Your task to perform on an android device: see tabs open on other devices in the chrome app Image 0: 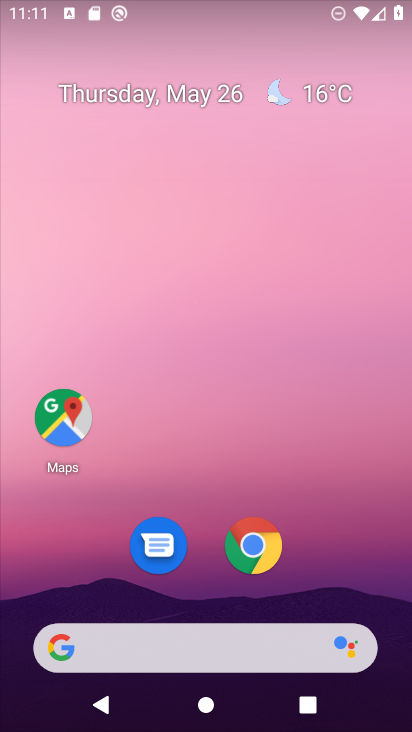
Step 0: press home button
Your task to perform on an android device: see tabs open on other devices in the chrome app Image 1: 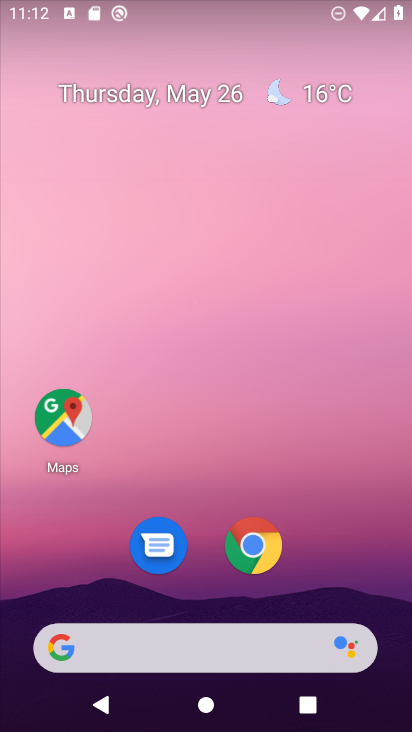
Step 1: click (254, 551)
Your task to perform on an android device: see tabs open on other devices in the chrome app Image 2: 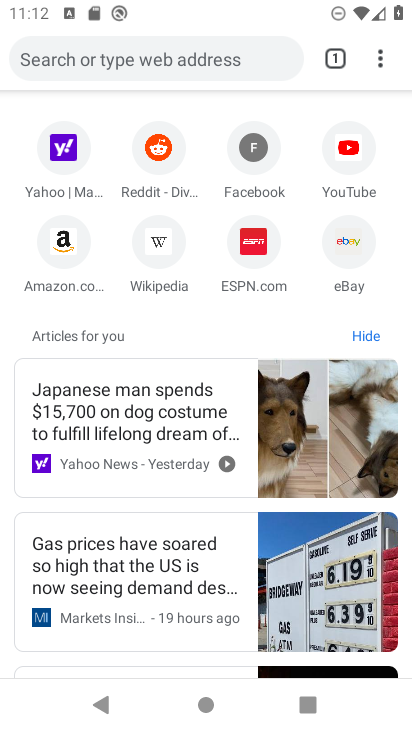
Step 2: task complete